Your task to perform on an android device: change notification settings in the gmail app Image 0: 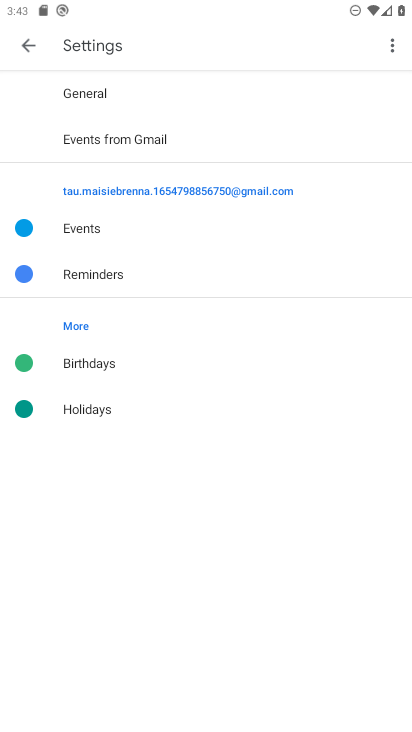
Step 0: press home button
Your task to perform on an android device: change notification settings in the gmail app Image 1: 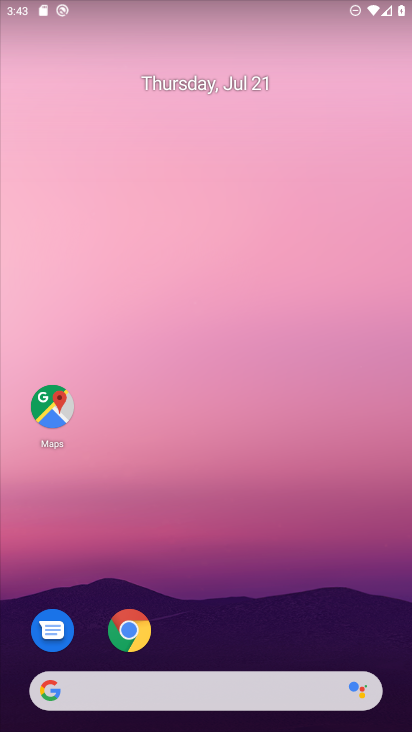
Step 1: drag from (203, 651) to (173, 33)
Your task to perform on an android device: change notification settings in the gmail app Image 2: 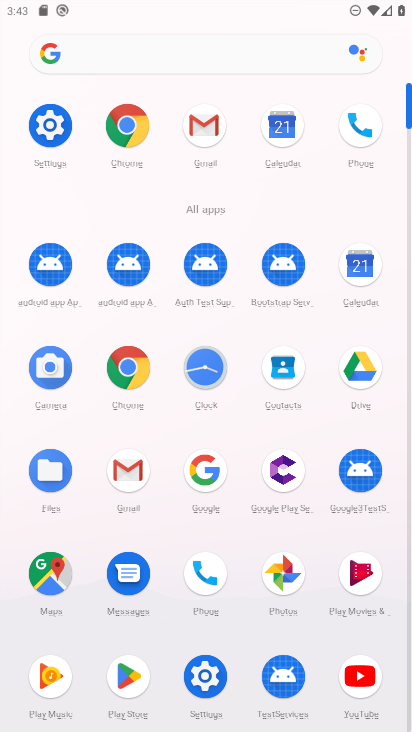
Step 2: click (128, 462)
Your task to perform on an android device: change notification settings in the gmail app Image 3: 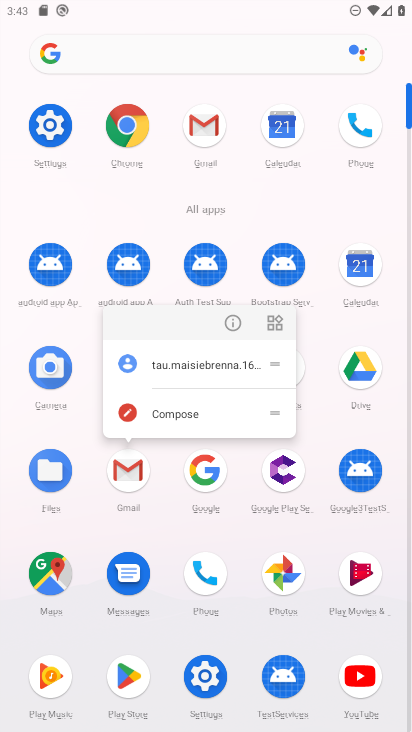
Step 3: click (131, 474)
Your task to perform on an android device: change notification settings in the gmail app Image 4: 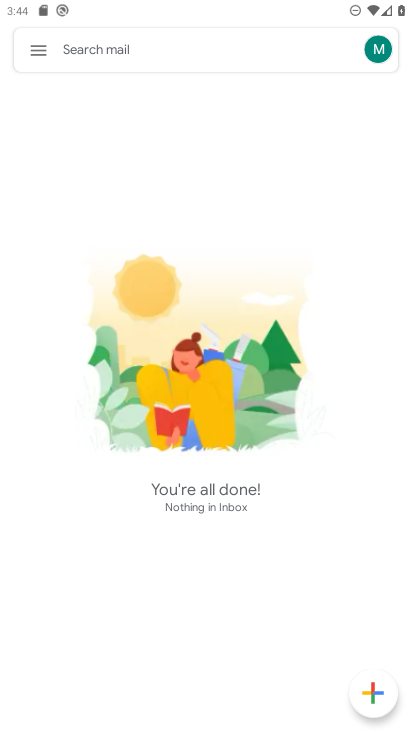
Step 4: click (28, 48)
Your task to perform on an android device: change notification settings in the gmail app Image 5: 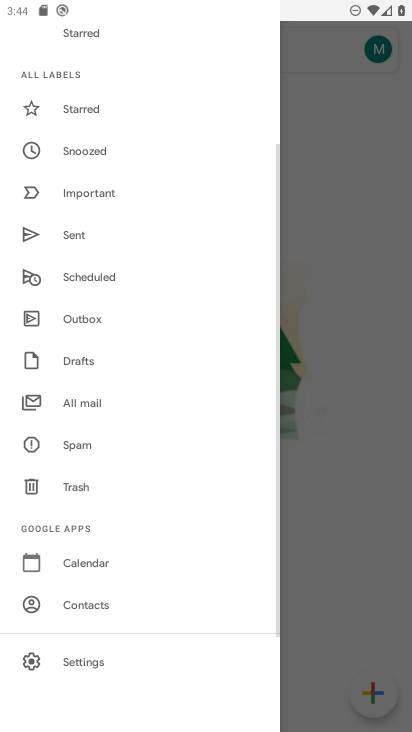
Step 5: click (106, 661)
Your task to perform on an android device: change notification settings in the gmail app Image 6: 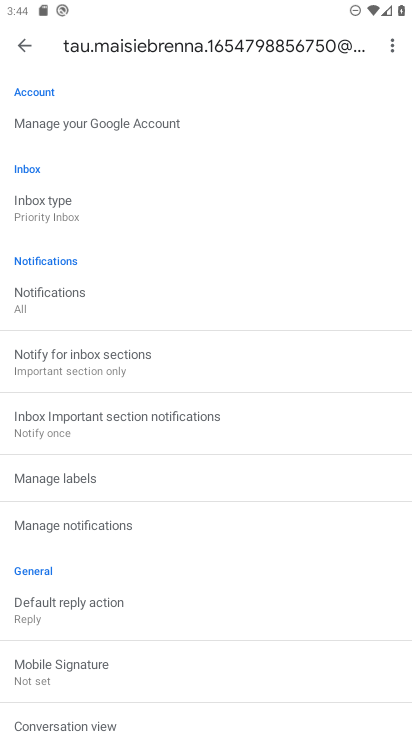
Step 6: click (18, 40)
Your task to perform on an android device: change notification settings in the gmail app Image 7: 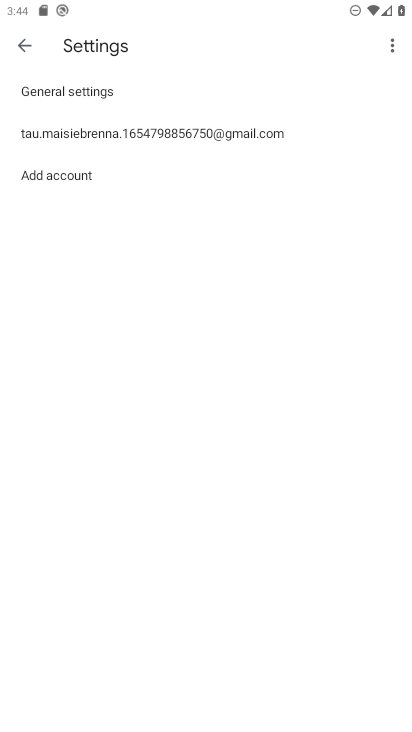
Step 7: click (72, 97)
Your task to perform on an android device: change notification settings in the gmail app Image 8: 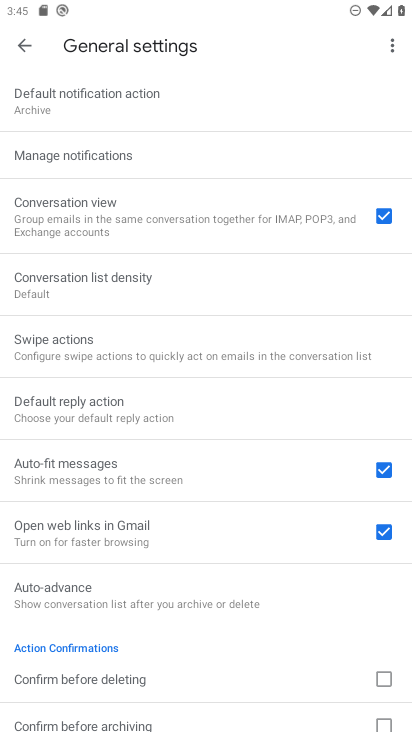
Step 8: click (109, 150)
Your task to perform on an android device: change notification settings in the gmail app Image 9: 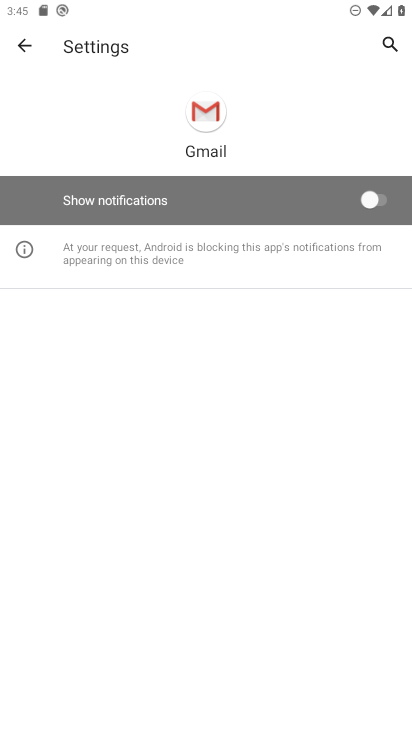
Step 9: click (366, 201)
Your task to perform on an android device: change notification settings in the gmail app Image 10: 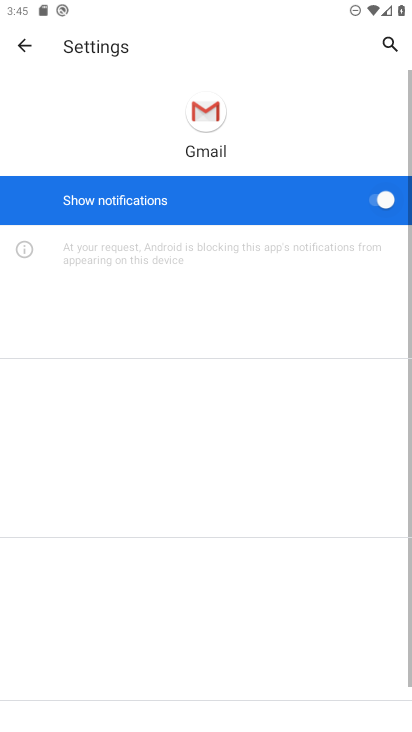
Step 10: task complete